Your task to perform on an android device: star an email in the gmail app Image 0: 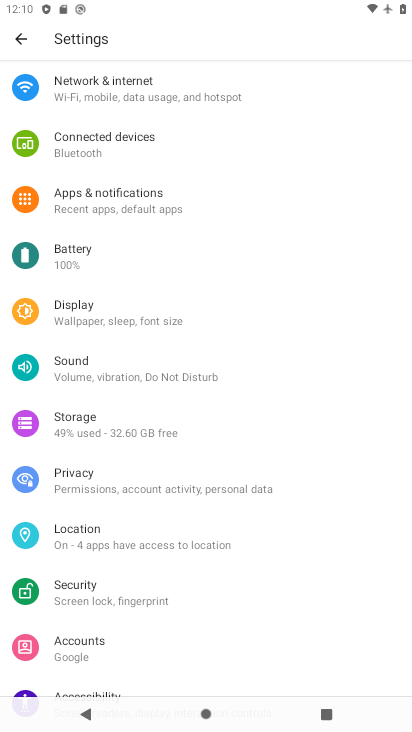
Step 0: press home button
Your task to perform on an android device: star an email in the gmail app Image 1: 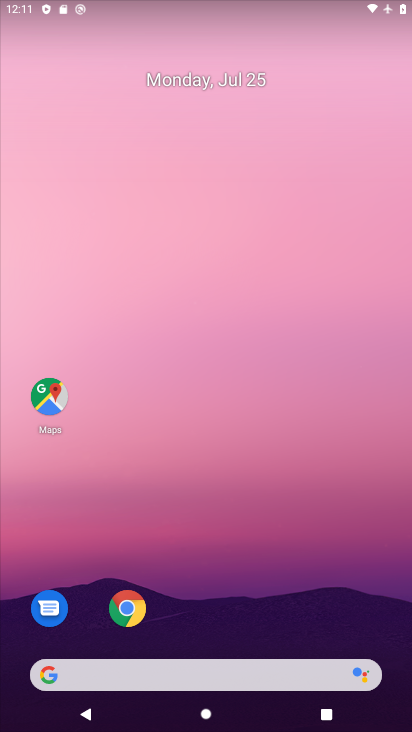
Step 1: drag from (226, 643) to (173, 149)
Your task to perform on an android device: star an email in the gmail app Image 2: 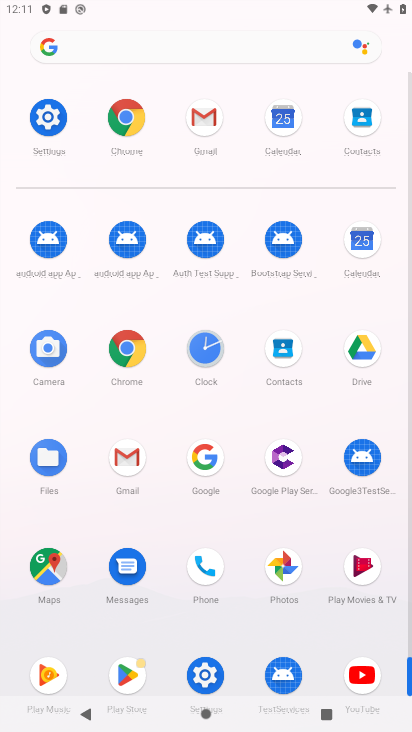
Step 2: click (131, 474)
Your task to perform on an android device: star an email in the gmail app Image 3: 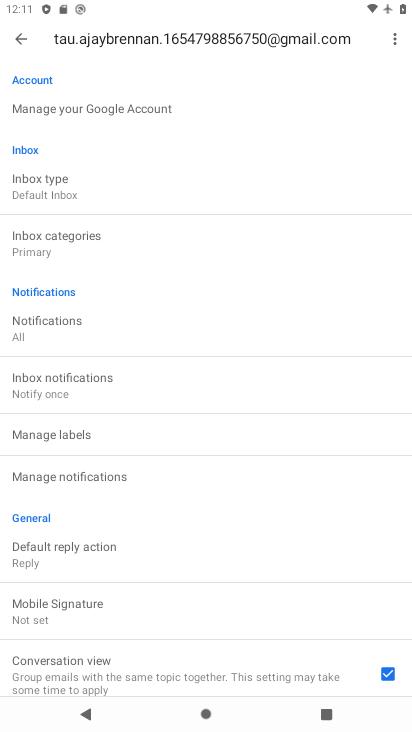
Step 3: click (16, 41)
Your task to perform on an android device: star an email in the gmail app Image 4: 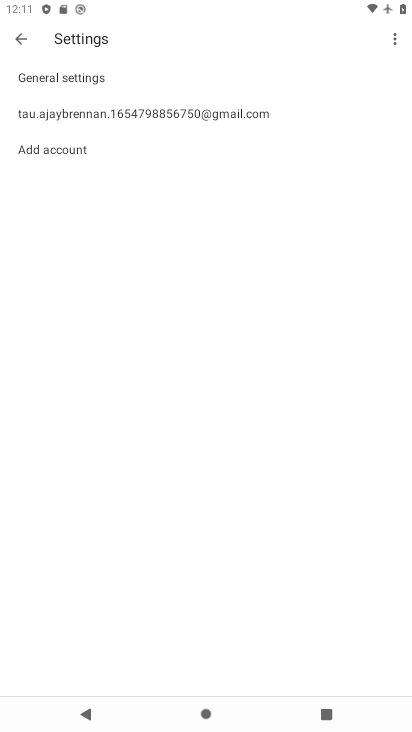
Step 4: click (20, 47)
Your task to perform on an android device: star an email in the gmail app Image 5: 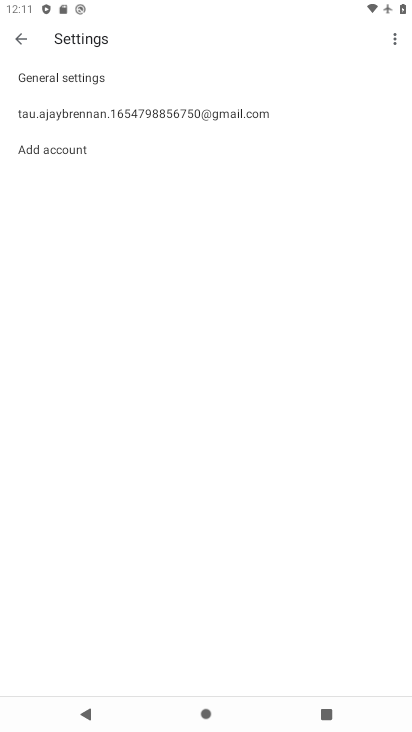
Step 5: click (21, 37)
Your task to perform on an android device: star an email in the gmail app Image 6: 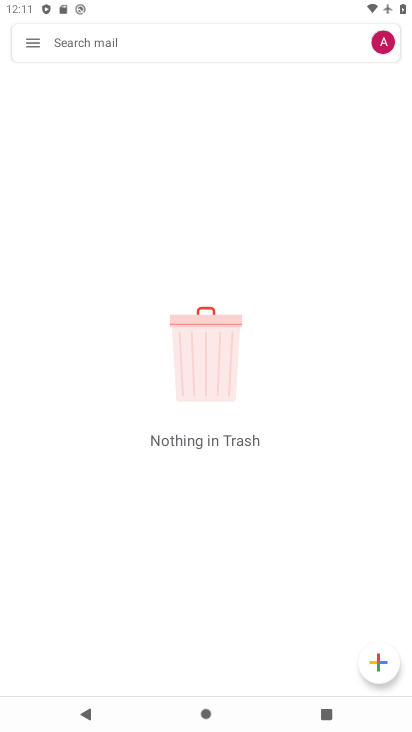
Step 6: click (34, 47)
Your task to perform on an android device: star an email in the gmail app Image 7: 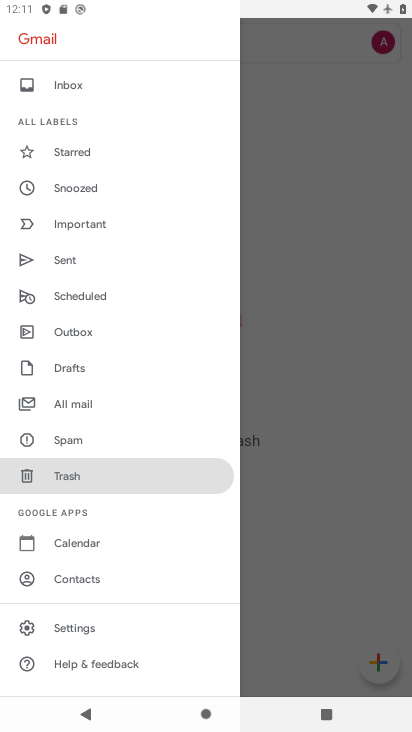
Step 7: click (104, 408)
Your task to perform on an android device: star an email in the gmail app Image 8: 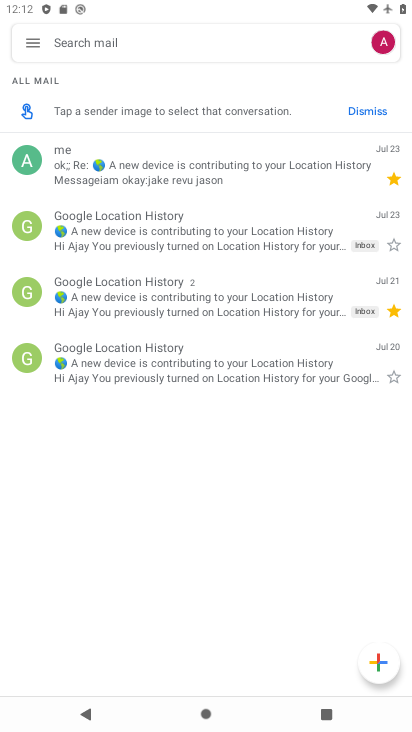
Step 8: click (226, 367)
Your task to perform on an android device: star an email in the gmail app Image 9: 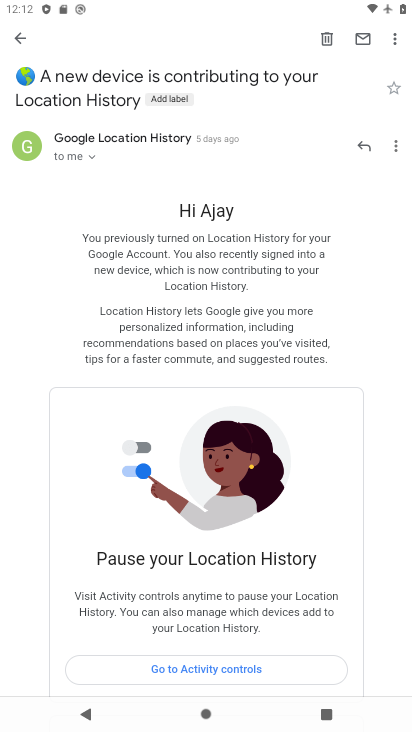
Step 9: click (391, 90)
Your task to perform on an android device: star an email in the gmail app Image 10: 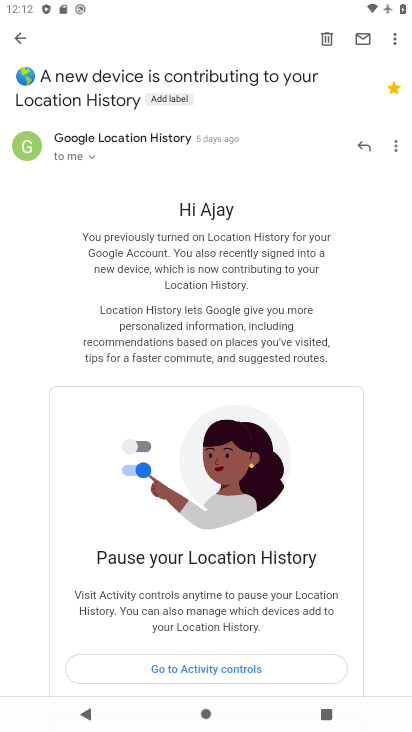
Step 10: task complete